Your task to perform on an android device: change text size in settings app Image 0: 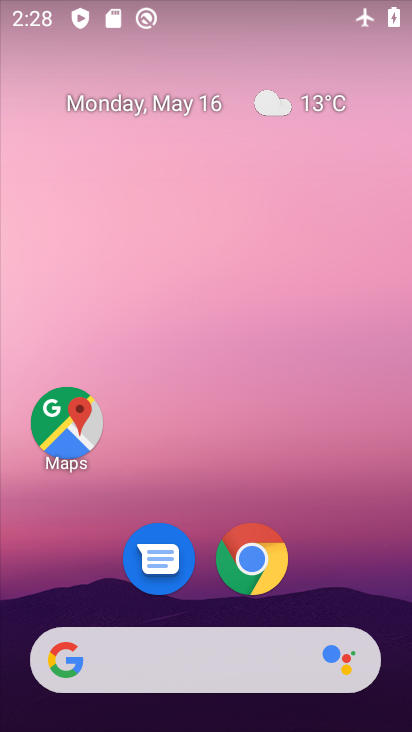
Step 0: drag from (184, 630) to (244, 5)
Your task to perform on an android device: change text size in settings app Image 1: 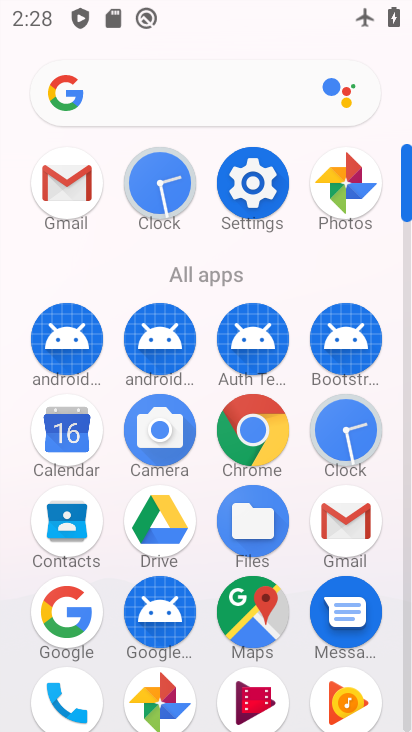
Step 1: click (243, 196)
Your task to perform on an android device: change text size in settings app Image 2: 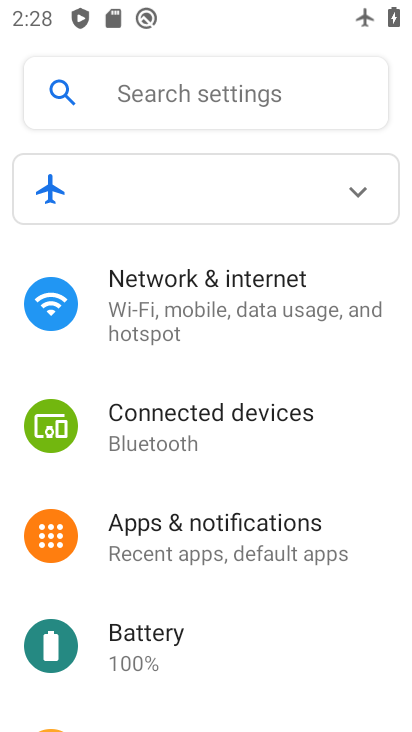
Step 2: drag from (217, 579) to (134, 194)
Your task to perform on an android device: change text size in settings app Image 3: 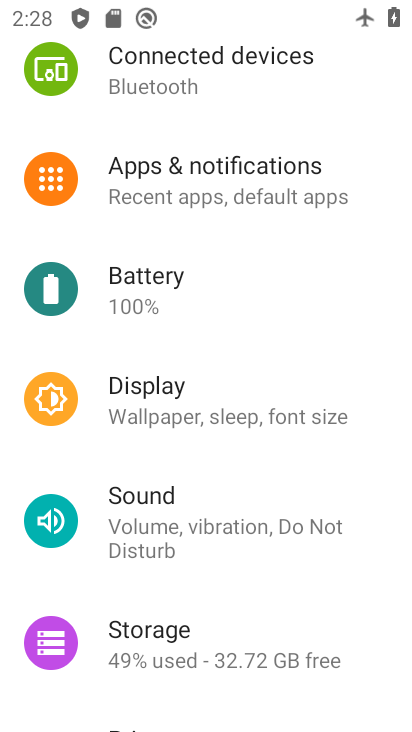
Step 3: click (167, 390)
Your task to perform on an android device: change text size in settings app Image 4: 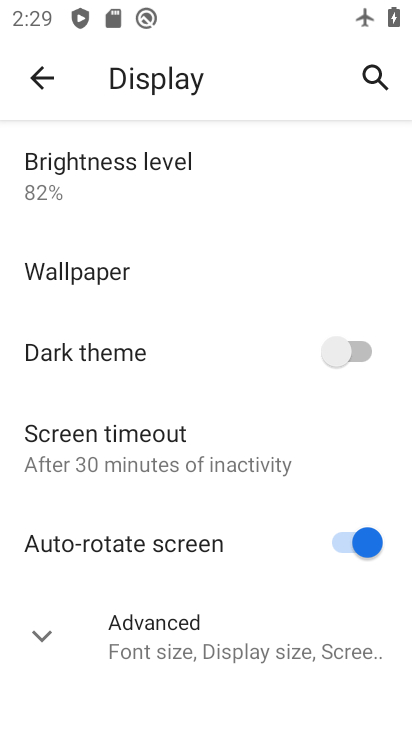
Step 4: click (123, 645)
Your task to perform on an android device: change text size in settings app Image 5: 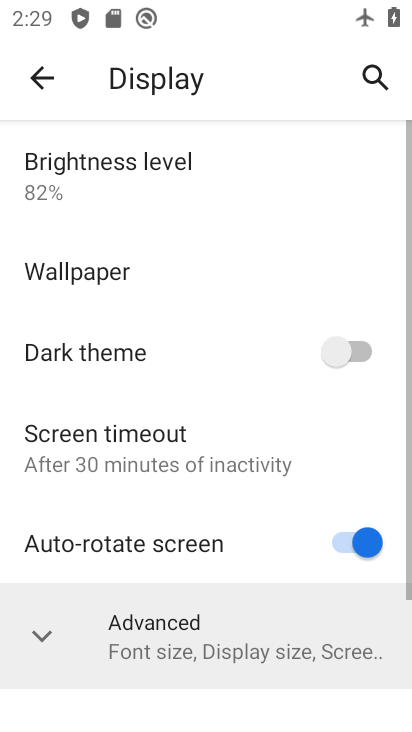
Step 5: drag from (123, 645) to (71, 270)
Your task to perform on an android device: change text size in settings app Image 6: 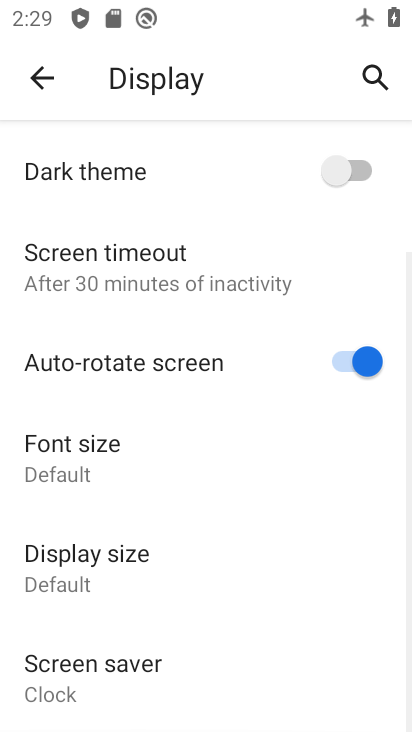
Step 6: click (118, 446)
Your task to perform on an android device: change text size in settings app Image 7: 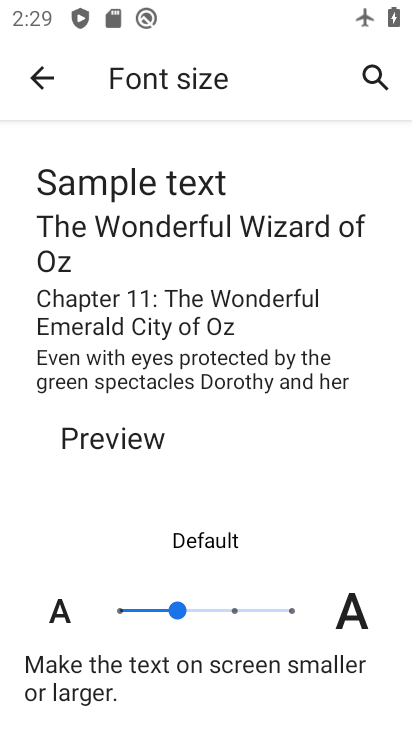
Step 7: click (223, 614)
Your task to perform on an android device: change text size in settings app Image 8: 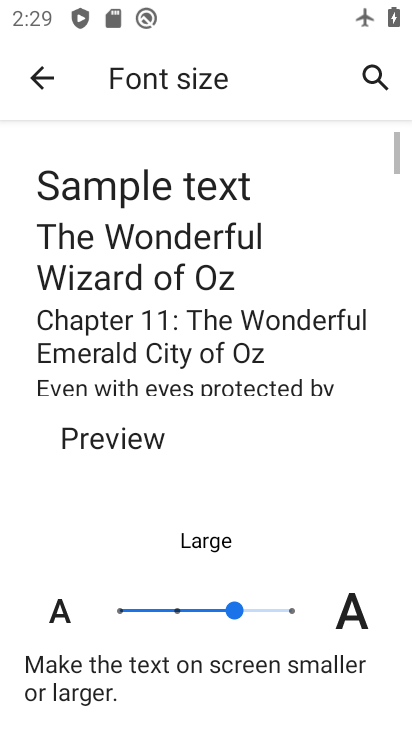
Step 8: task complete